Your task to perform on an android device: Show me the alarms in the clock app Image 0: 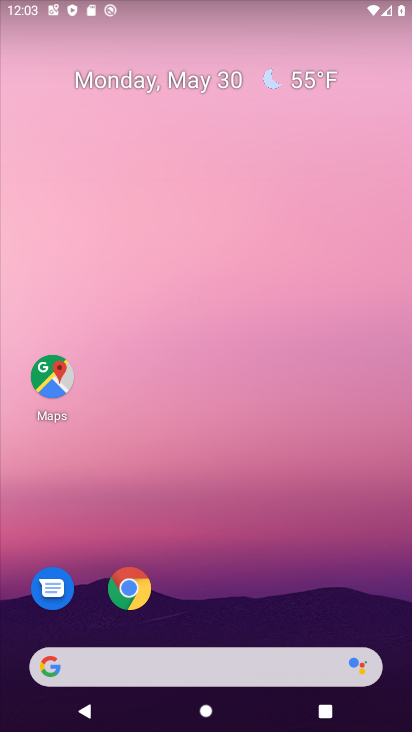
Step 0: drag from (283, 612) to (41, 250)
Your task to perform on an android device: Show me the alarms in the clock app Image 1: 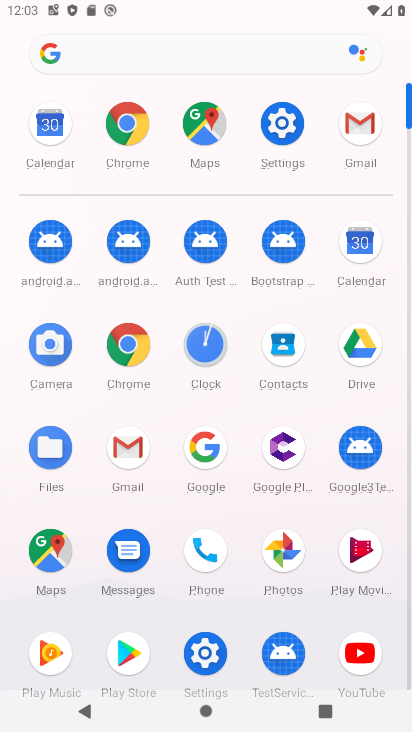
Step 1: click (202, 355)
Your task to perform on an android device: Show me the alarms in the clock app Image 2: 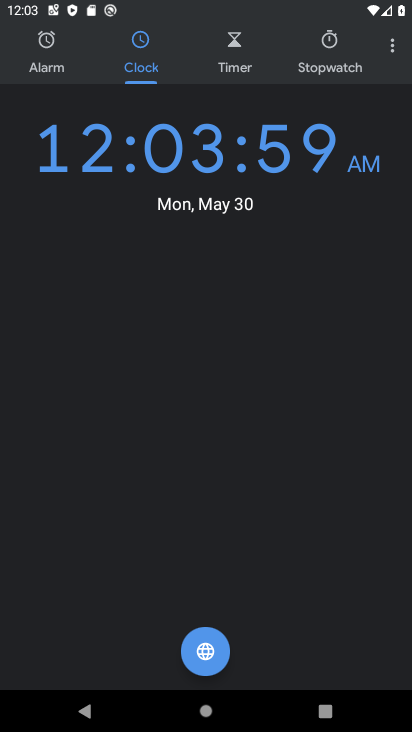
Step 2: click (404, 39)
Your task to perform on an android device: Show me the alarms in the clock app Image 3: 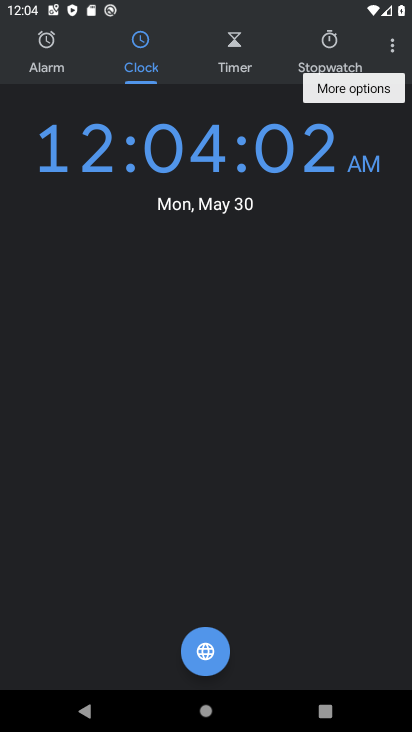
Step 3: click (32, 68)
Your task to perform on an android device: Show me the alarms in the clock app Image 4: 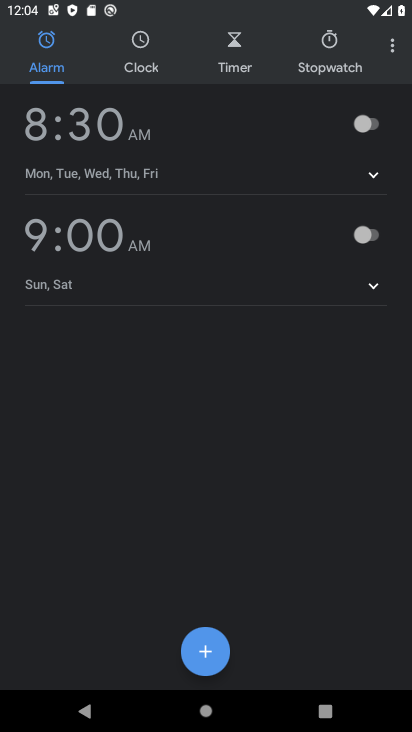
Step 4: click (83, 127)
Your task to perform on an android device: Show me the alarms in the clock app Image 5: 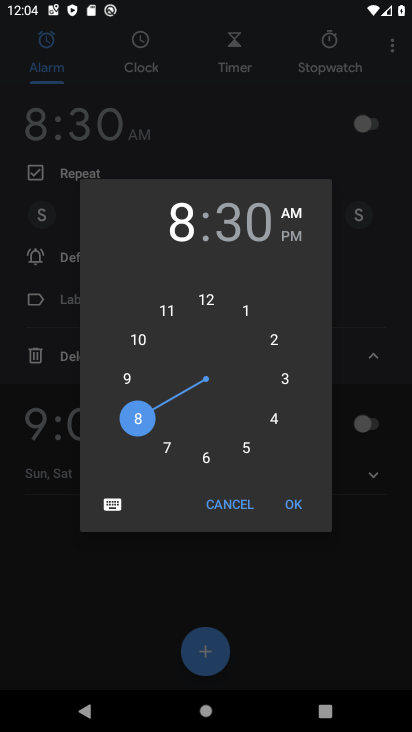
Step 5: task complete